Your task to perform on an android device: Go to network settings Image 0: 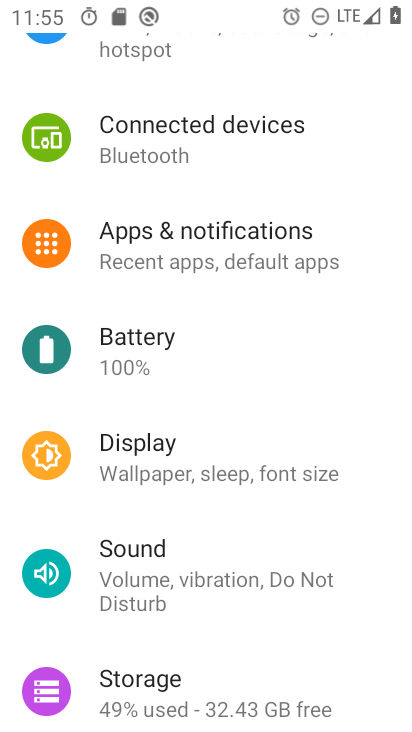
Step 0: press home button
Your task to perform on an android device: Go to network settings Image 1: 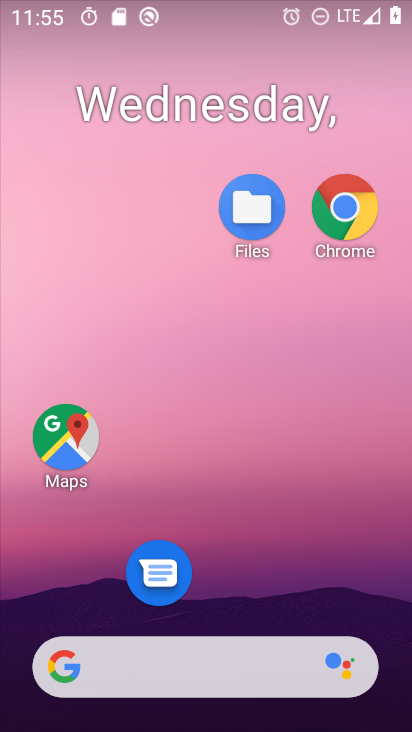
Step 1: drag from (197, 630) to (198, 166)
Your task to perform on an android device: Go to network settings Image 2: 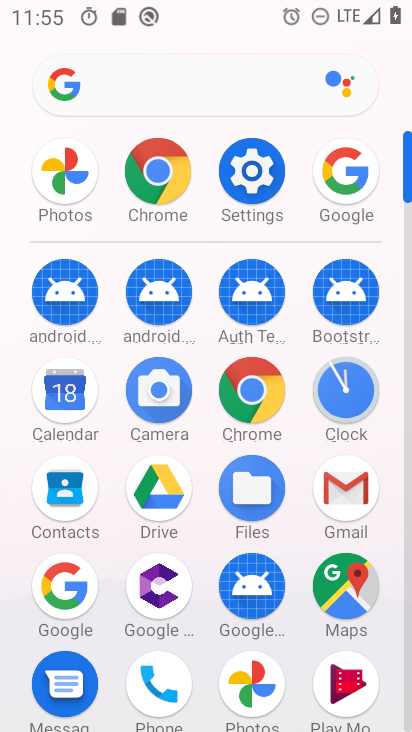
Step 2: click (249, 173)
Your task to perform on an android device: Go to network settings Image 3: 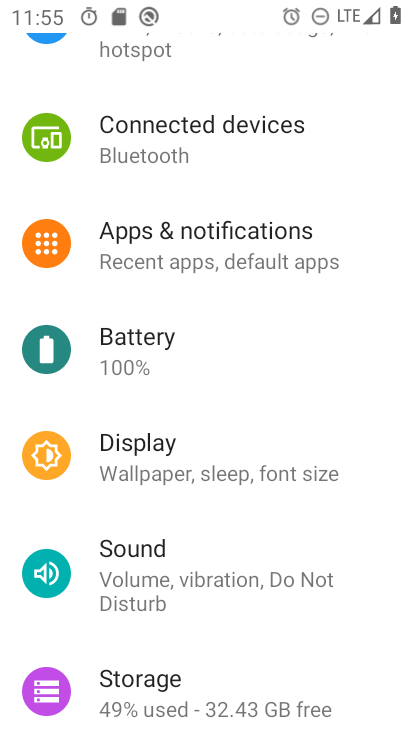
Step 3: drag from (261, 267) to (221, 648)
Your task to perform on an android device: Go to network settings Image 4: 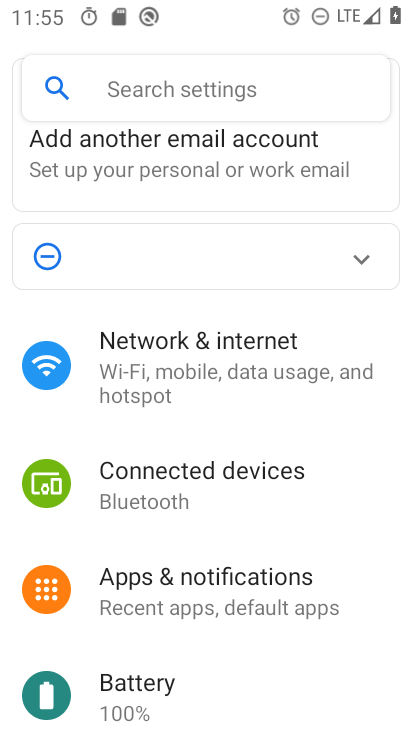
Step 4: click (201, 355)
Your task to perform on an android device: Go to network settings Image 5: 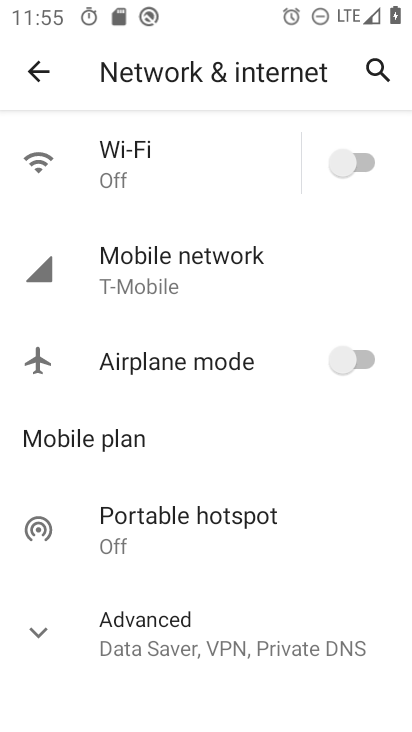
Step 5: click (201, 355)
Your task to perform on an android device: Go to network settings Image 6: 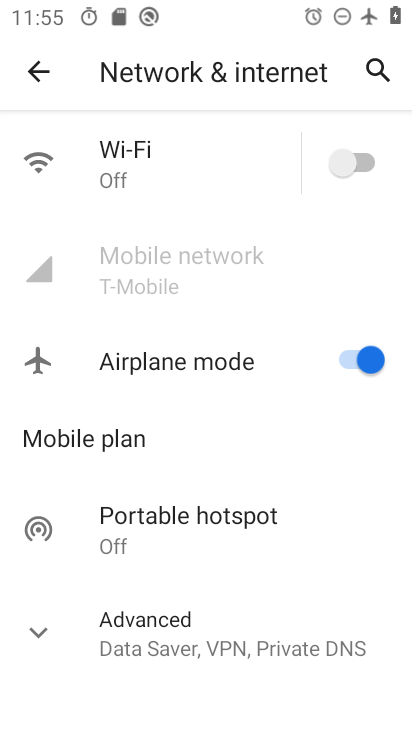
Step 6: task complete